Your task to perform on an android device: View the shopping cart on ebay. Search for "dell alienware" on ebay, select the first entry, add it to the cart, then select checkout. Image 0: 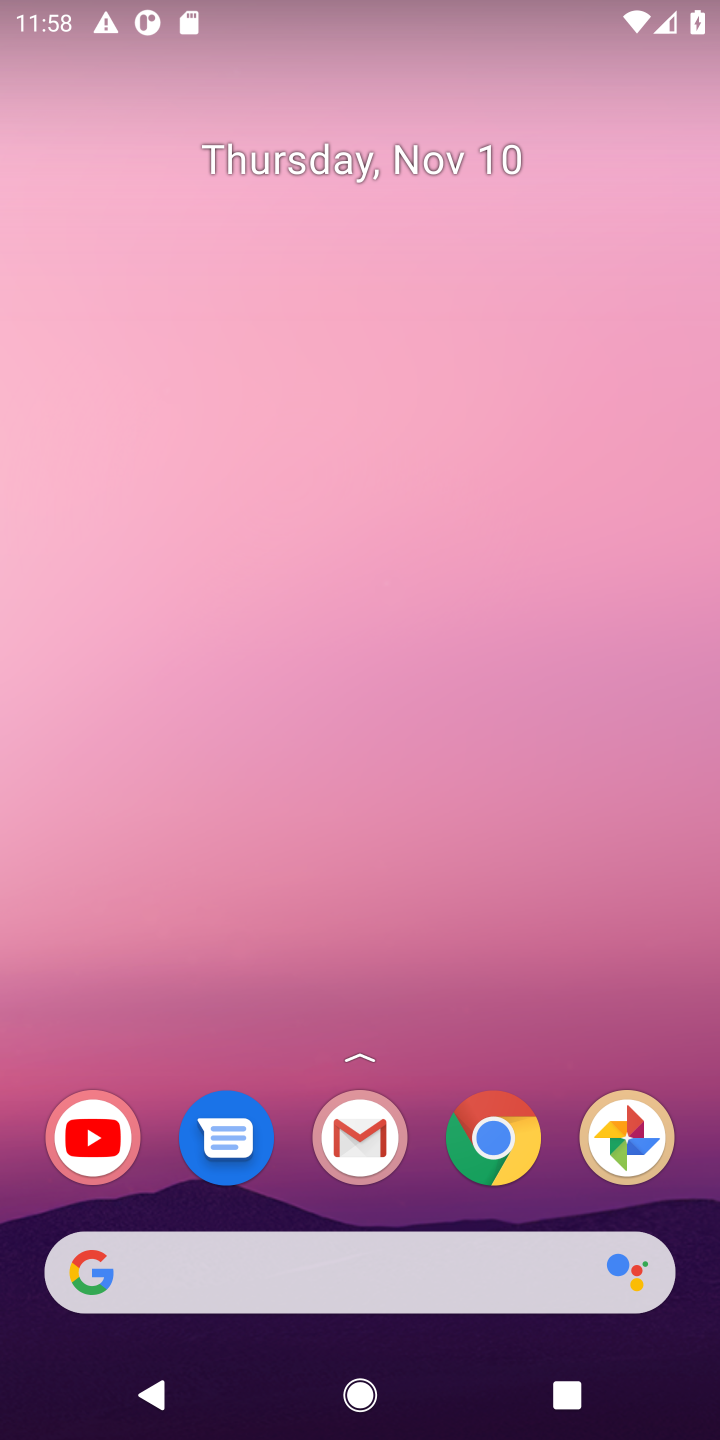
Step 0: click (520, 1140)
Your task to perform on an android device: View the shopping cart on ebay. Search for "dell alienware" on ebay, select the first entry, add it to the cart, then select checkout. Image 1: 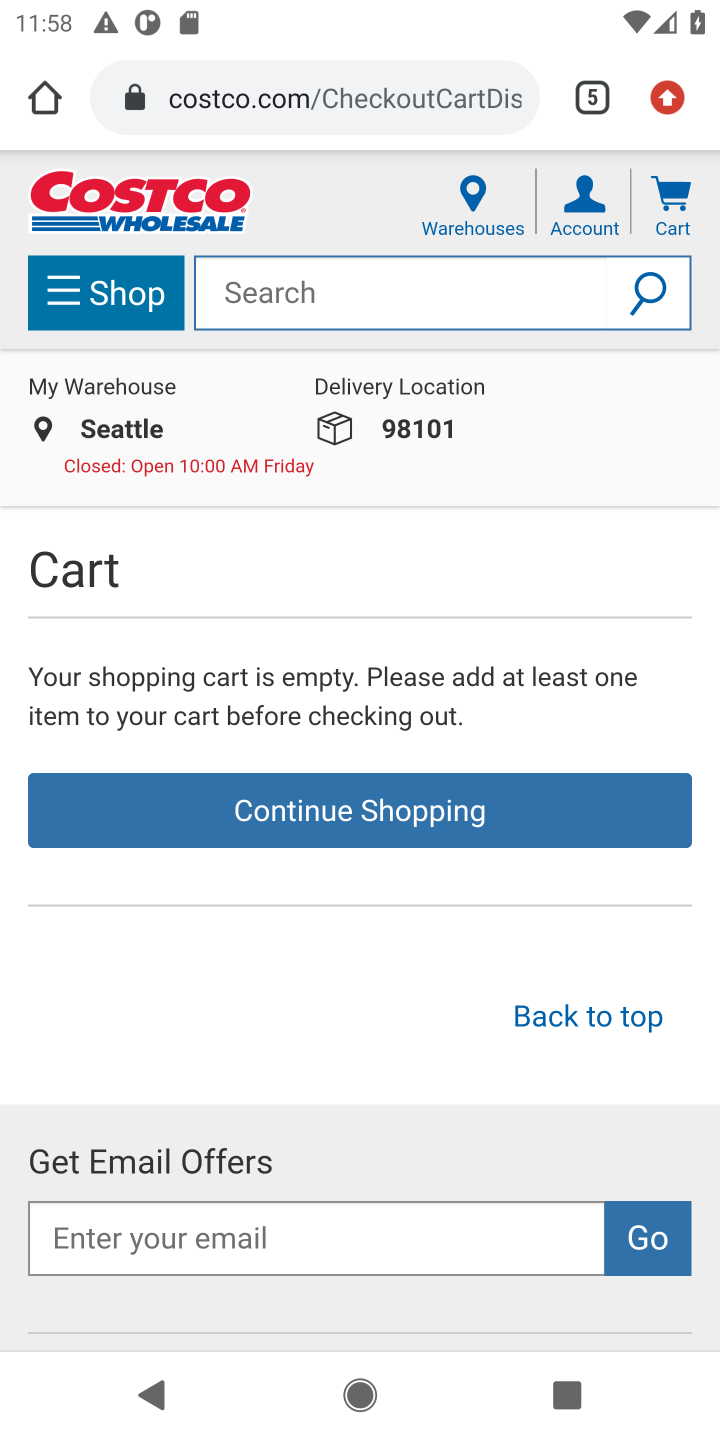
Step 1: click (590, 93)
Your task to perform on an android device: View the shopping cart on ebay. Search for "dell alienware" on ebay, select the first entry, add it to the cart, then select checkout. Image 2: 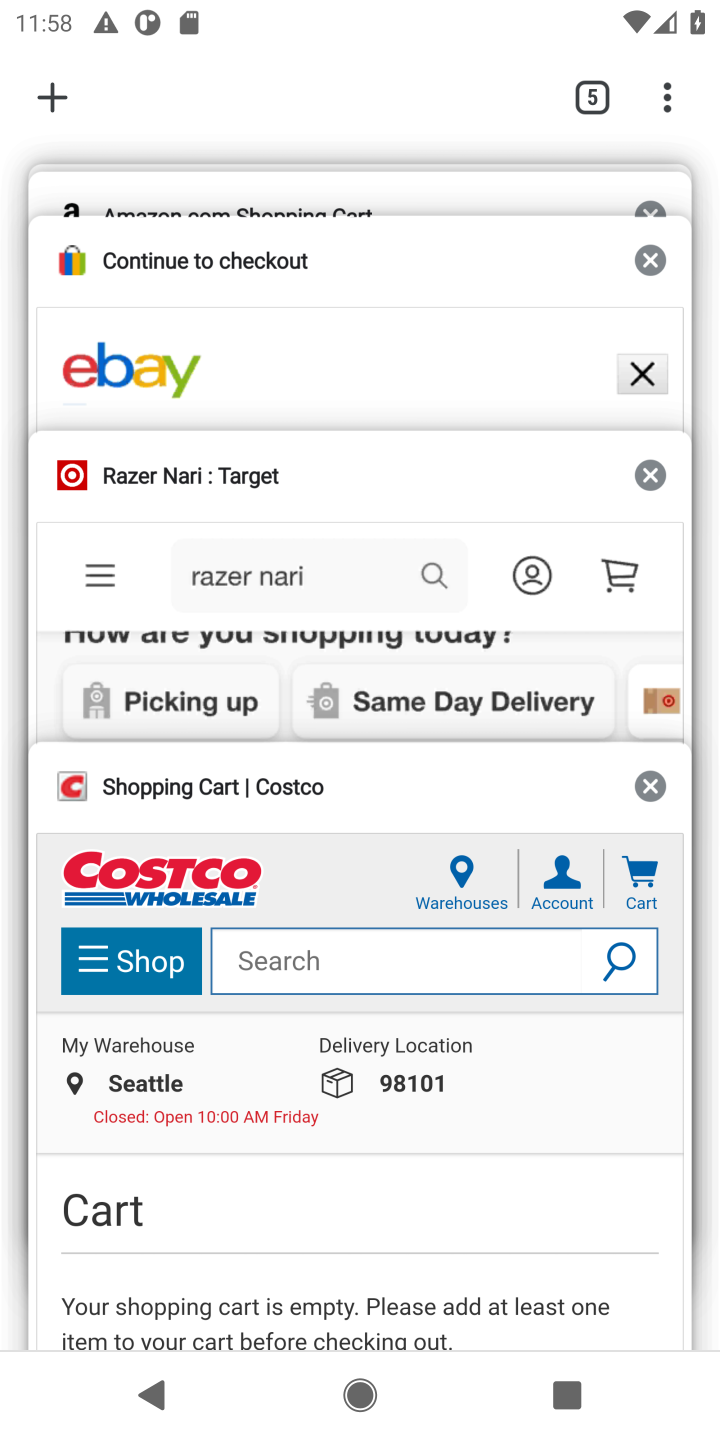
Step 2: click (194, 285)
Your task to perform on an android device: View the shopping cart on ebay. Search for "dell alienware" on ebay, select the first entry, add it to the cart, then select checkout. Image 3: 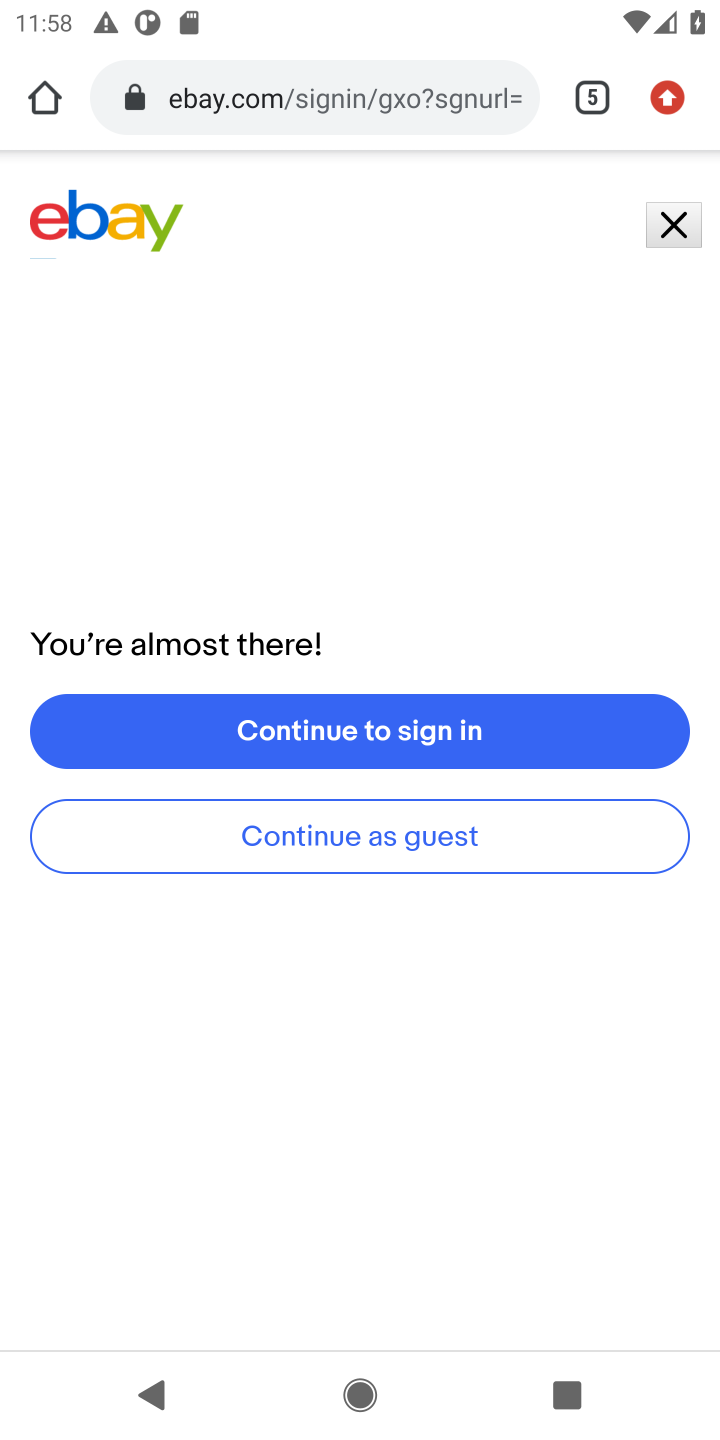
Step 3: click (674, 224)
Your task to perform on an android device: View the shopping cart on ebay. Search for "dell alienware" on ebay, select the first entry, add it to the cart, then select checkout. Image 4: 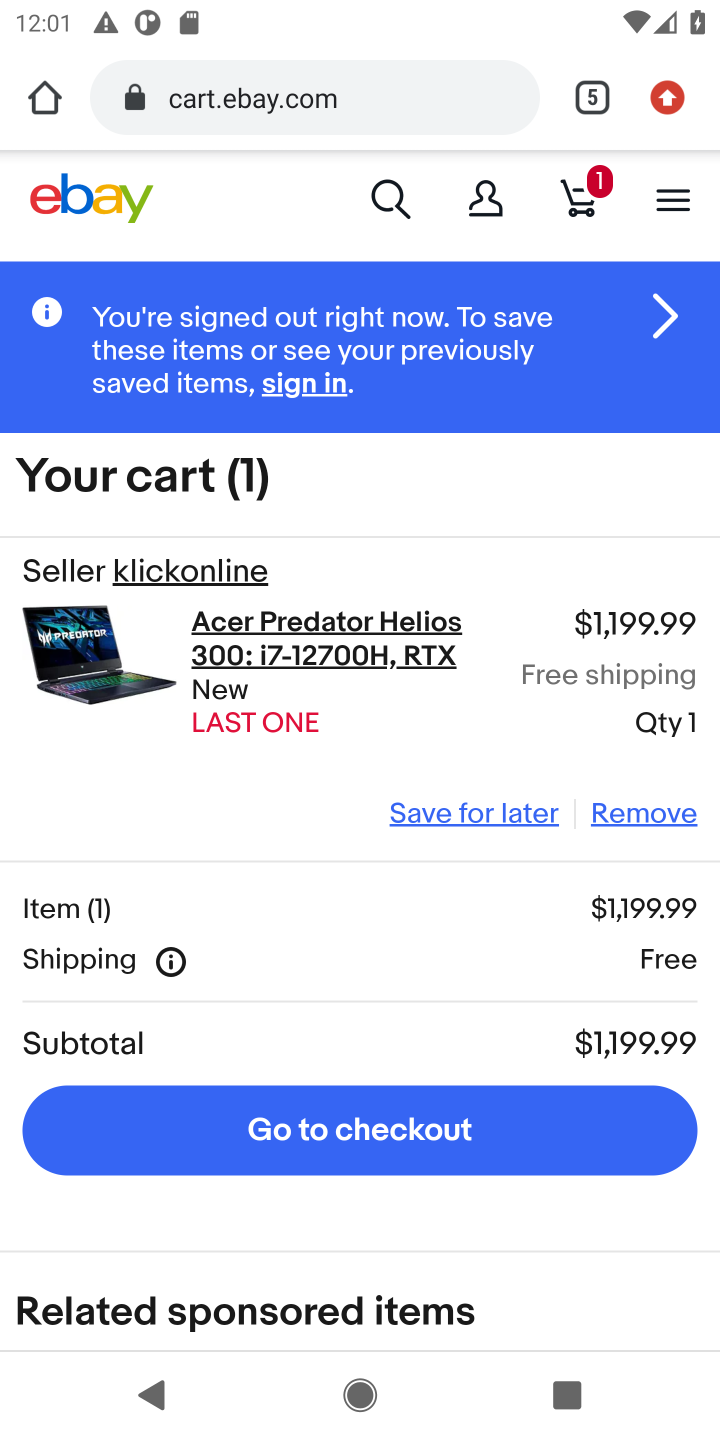
Step 4: click (379, 204)
Your task to perform on an android device: View the shopping cart on ebay. Search for "dell alienware" on ebay, select the first entry, add it to the cart, then select checkout. Image 5: 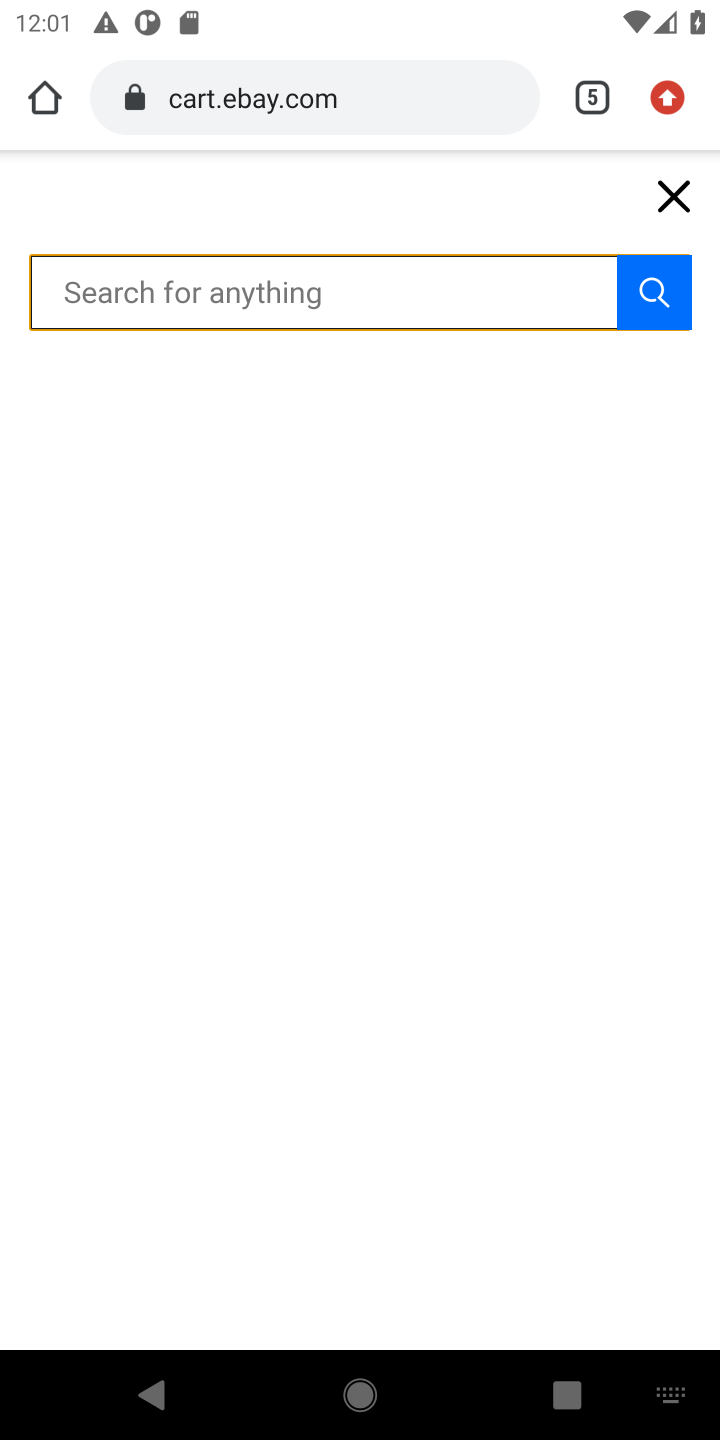
Step 5: type "dell alienware"
Your task to perform on an android device: View the shopping cart on ebay. Search for "dell alienware" on ebay, select the first entry, add it to the cart, then select checkout. Image 6: 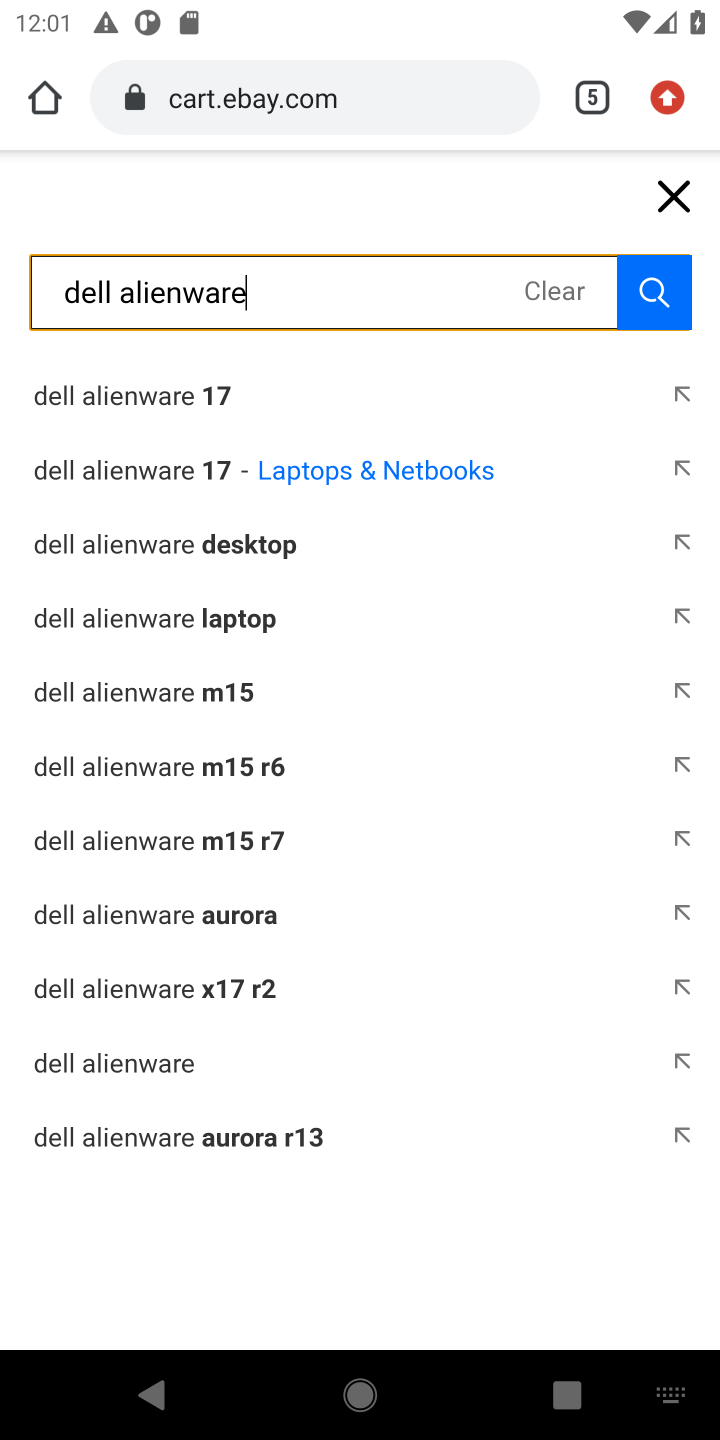
Step 6: click (217, 397)
Your task to perform on an android device: View the shopping cart on ebay. Search for "dell alienware" on ebay, select the first entry, add it to the cart, then select checkout. Image 7: 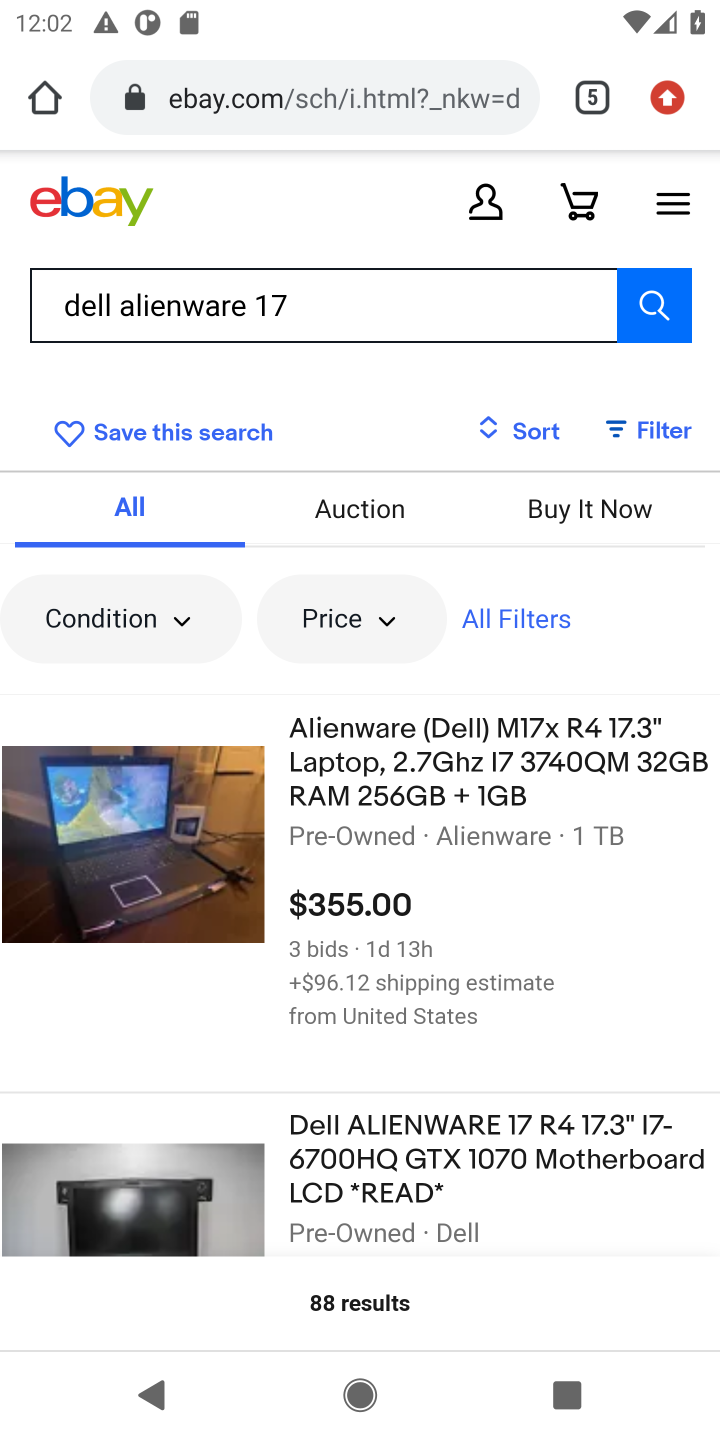
Step 7: click (488, 783)
Your task to perform on an android device: View the shopping cart on ebay. Search for "dell alienware" on ebay, select the first entry, add it to the cart, then select checkout. Image 8: 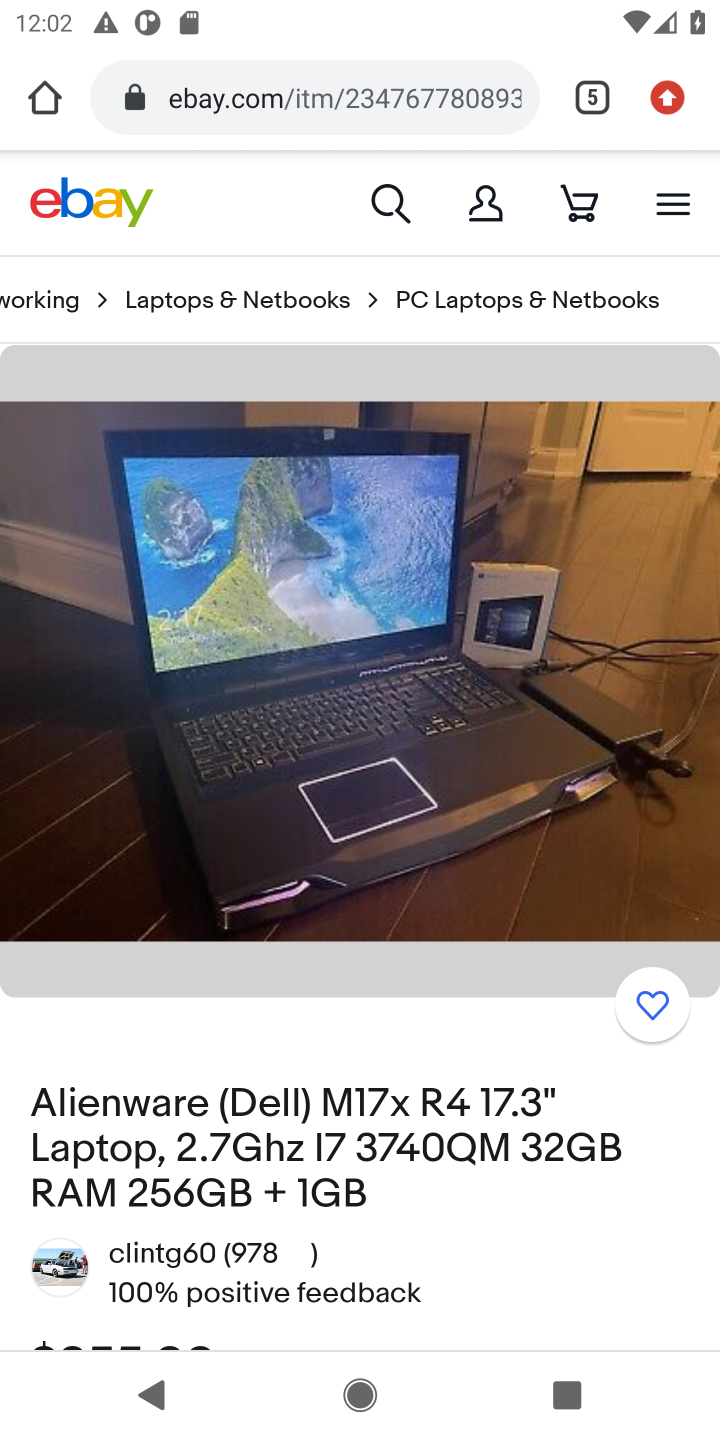
Step 8: drag from (598, 173) to (633, 53)
Your task to perform on an android device: View the shopping cart on ebay. Search for "dell alienware" on ebay, select the first entry, add it to the cart, then select checkout. Image 9: 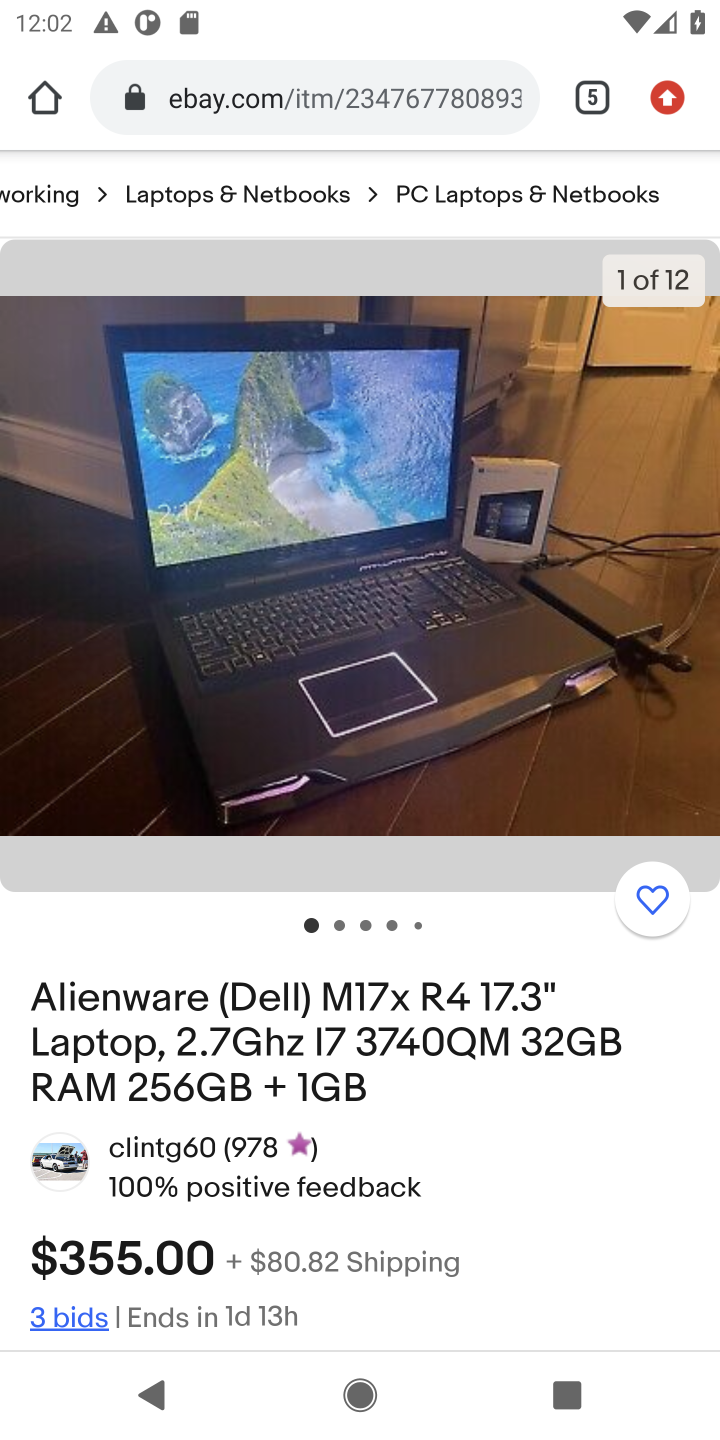
Step 9: drag from (335, 1248) to (544, 414)
Your task to perform on an android device: View the shopping cart on ebay. Search for "dell alienware" on ebay, select the first entry, add it to the cart, then select checkout. Image 10: 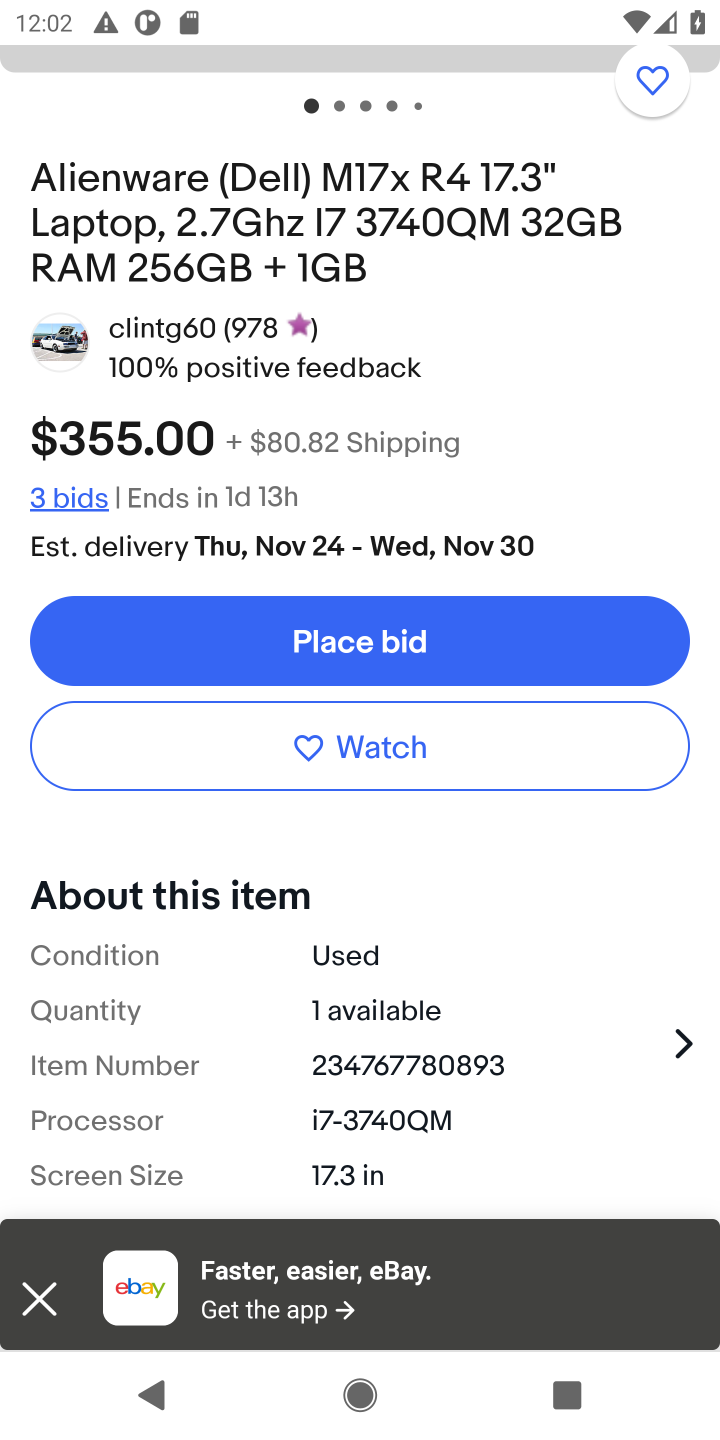
Step 10: drag from (495, 904) to (719, 155)
Your task to perform on an android device: View the shopping cart on ebay. Search for "dell alienware" on ebay, select the first entry, add it to the cart, then select checkout. Image 11: 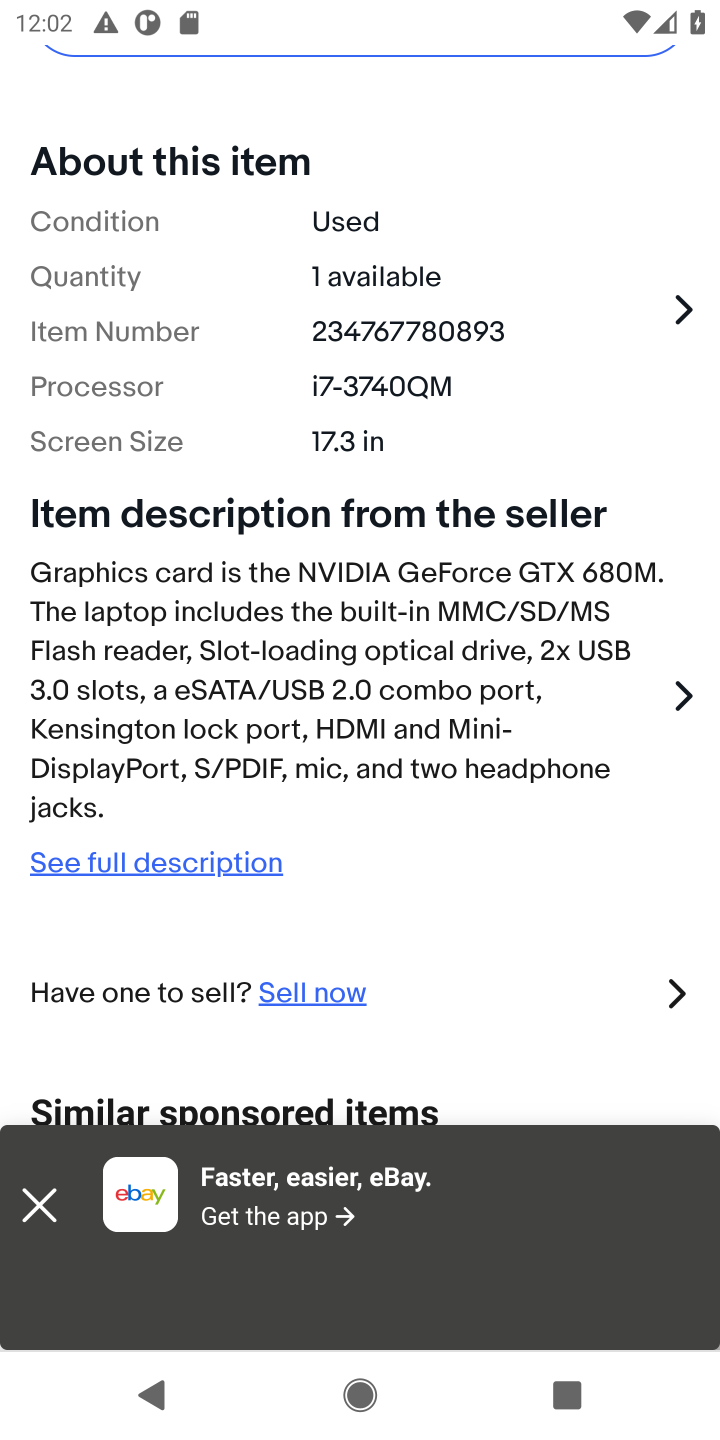
Step 11: drag from (422, 767) to (637, 217)
Your task to perform on an android device: View the shopping cart on ebay. Search for "dell alienware" on ebay, select the first entry, add it to the cart, then select checkout. Image 12: 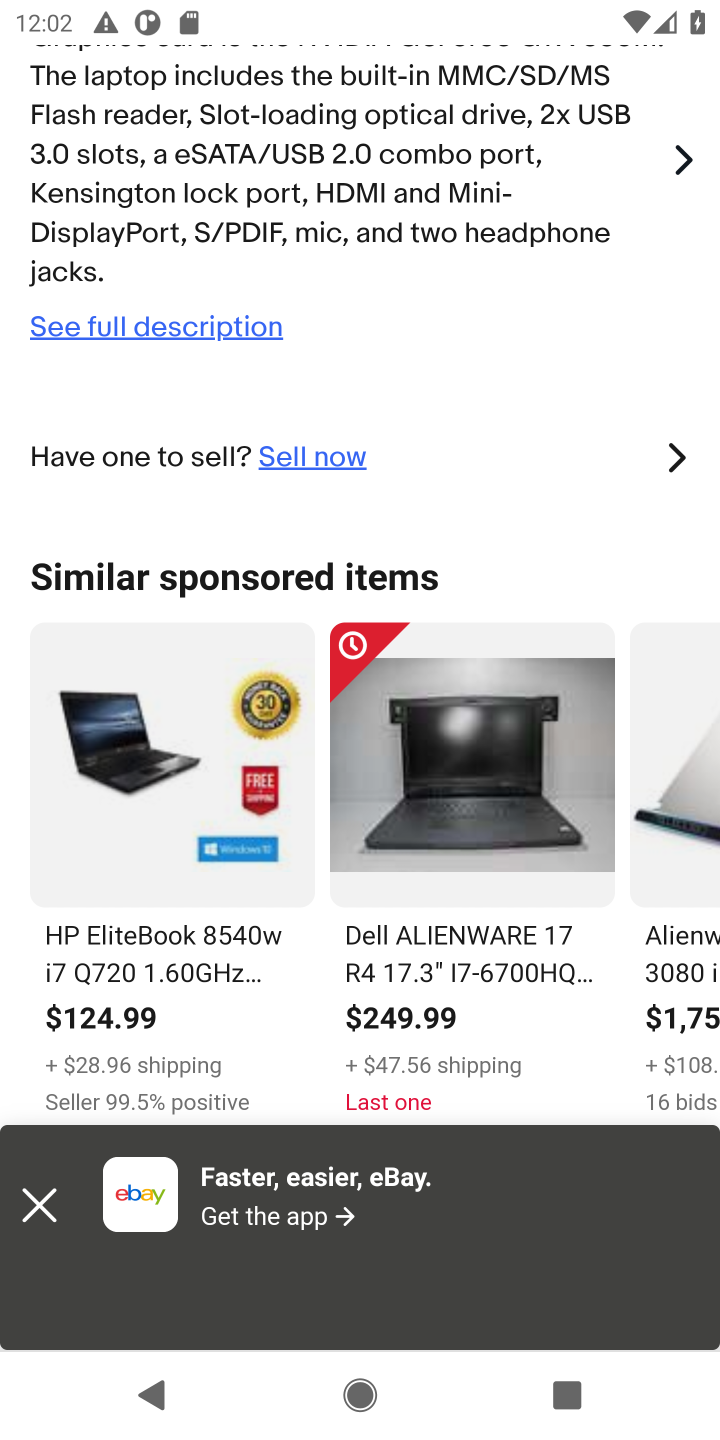
Step 12: click (483, 950)
Your task to perform on an android device: View the shopping cart on ebay. Search for "dell alienware" on ebay, select the first entry, add it to the cart, then select checkout. Image 13: 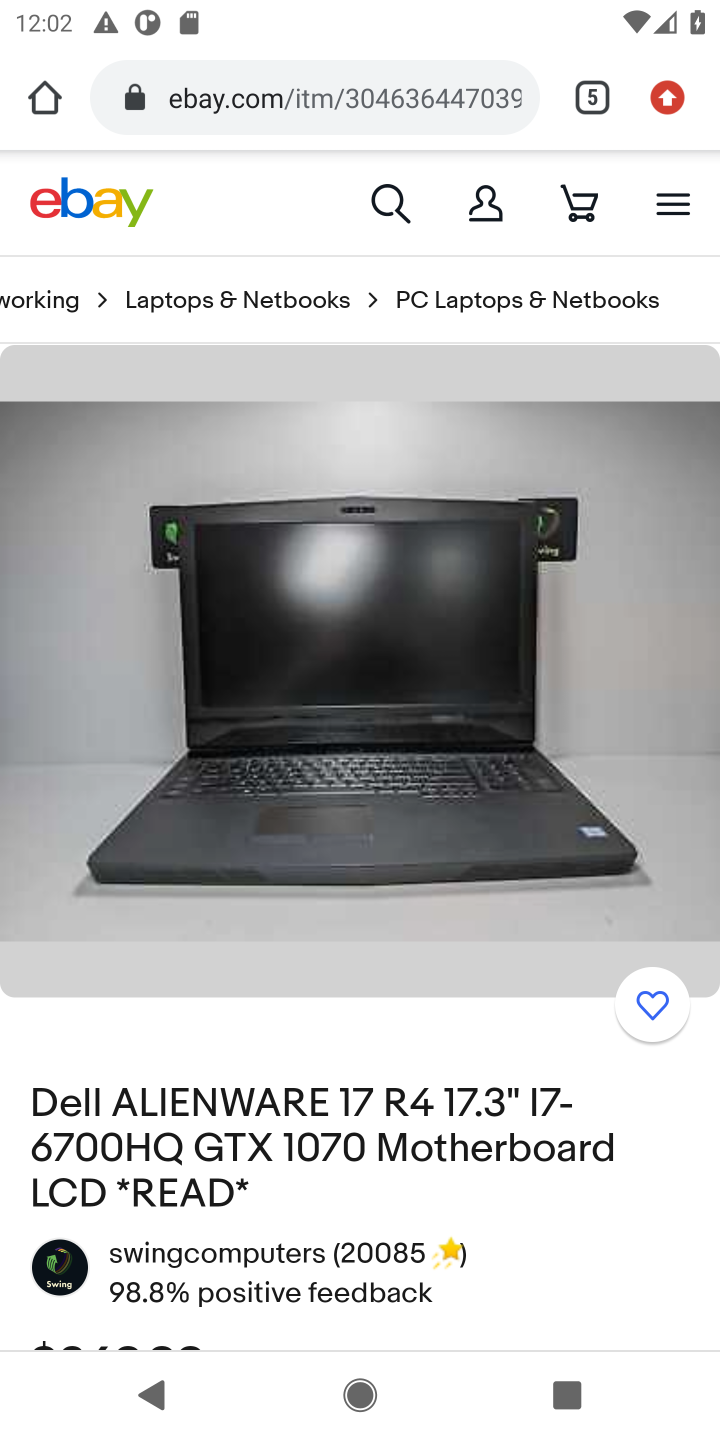
Step 13: drag from (226, 1209) to (352, 216)
Your task to perform on an android device: View the shopping cart on ebay. Search for "dell alienware" on ebay, select the first entry, add it to the cart, then select checkout. Image 14: 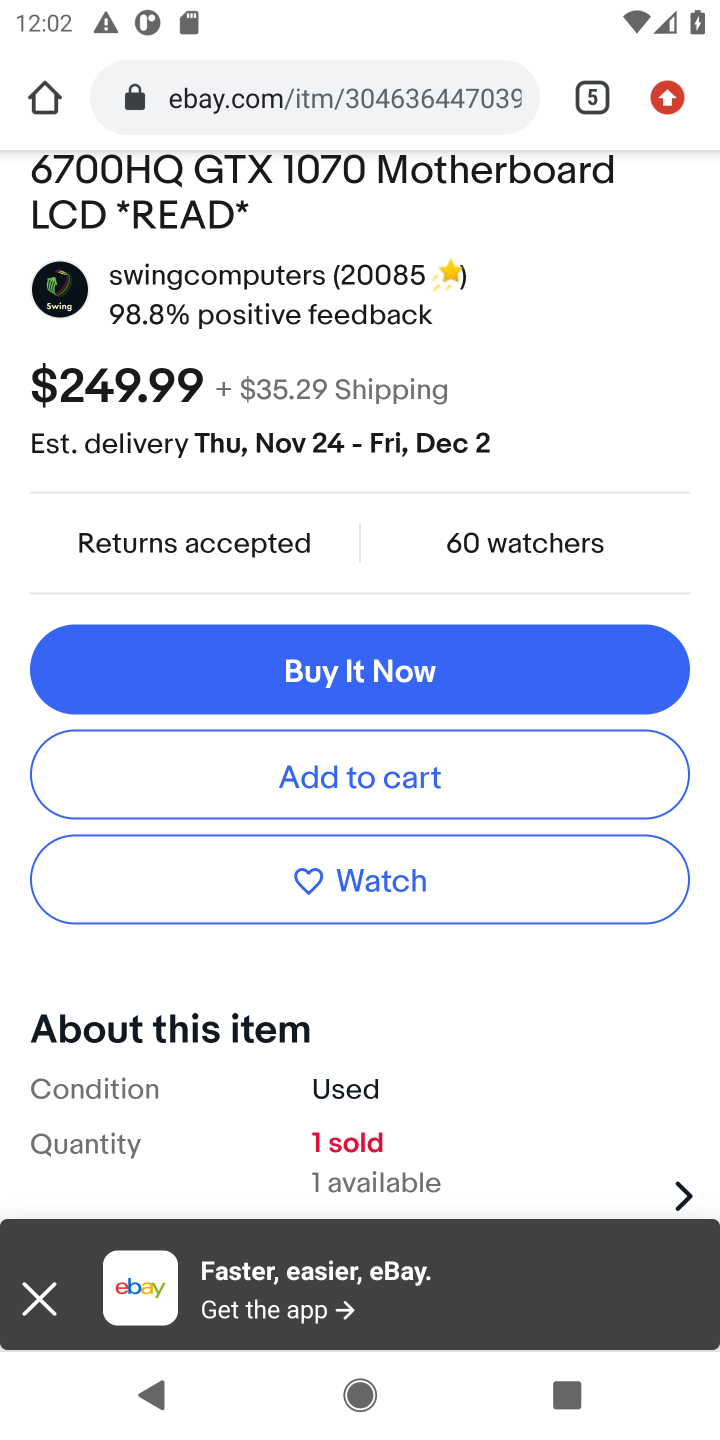
Step 14: click (353, 782)
Your task to perform on an android device: View the shopping cart on ebay. Search for "dell alienware" on ebay, select the first entry, add it to the cart, then select checkout. Image 15: 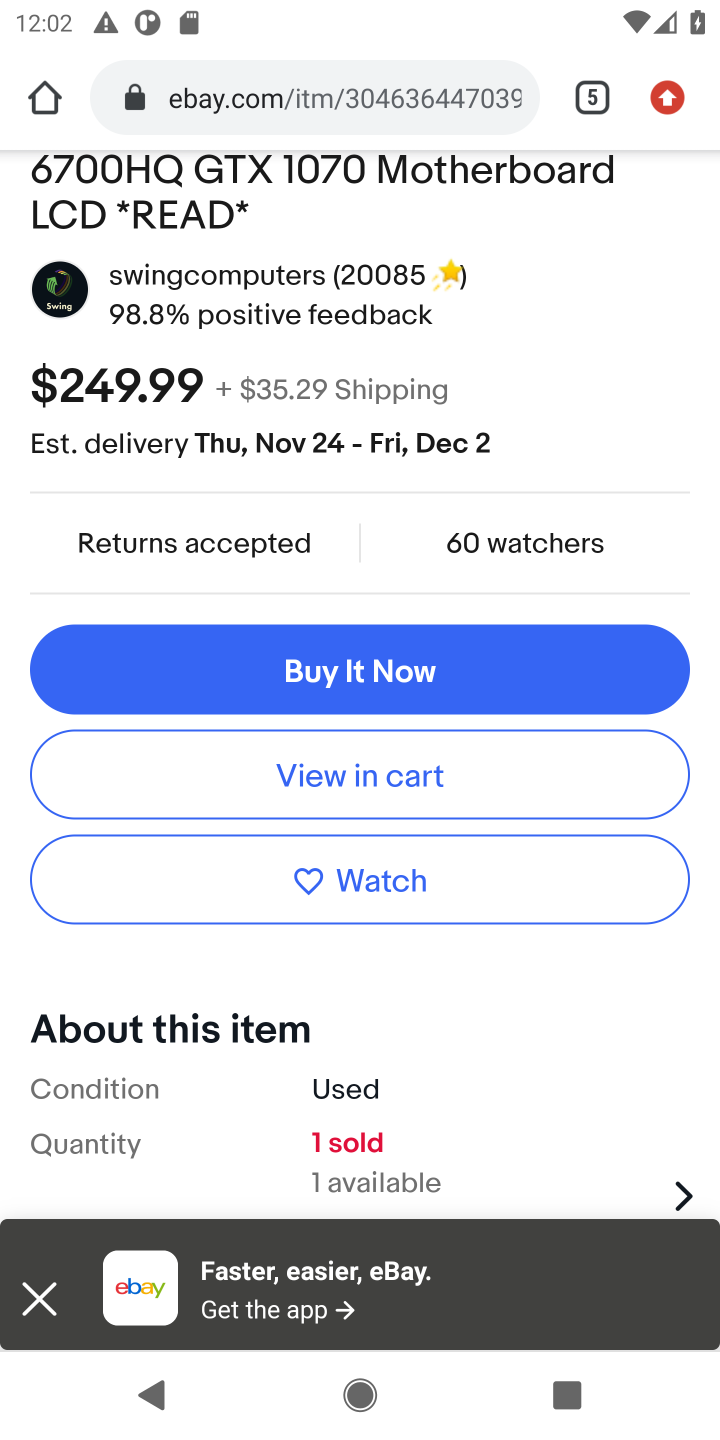
Step 15: task complete